Your task to perform on an android device: turn off priority inbox in the gmail app Image 0: 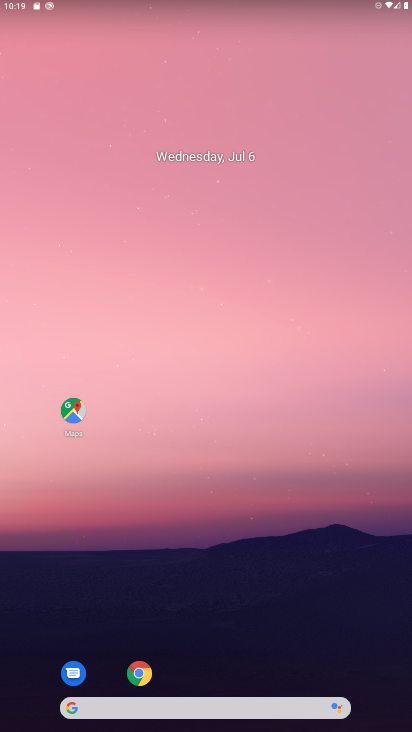
Step 0: drag from (208, 630) to (234, 122)
Your task to perform on an android device: turn off priority inbox in the gmail app Image 1: 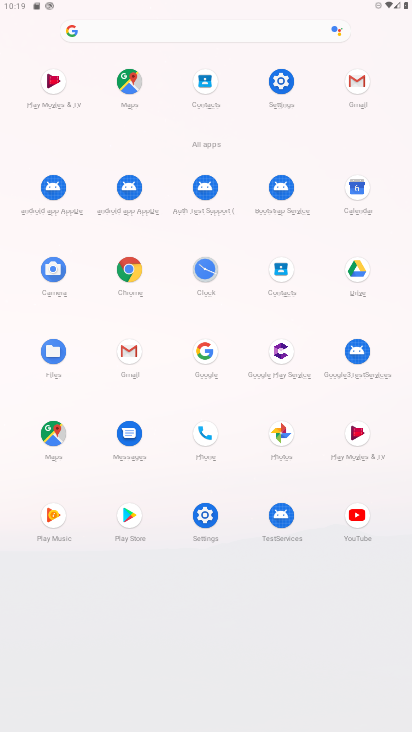
Step 1: click (361, 87)
Your task to perform on an android device: turn off priority inbox in the gmail app Image 2: 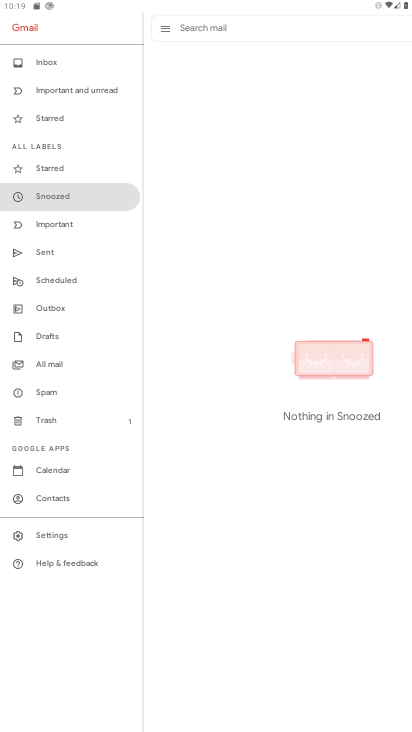
Step 2: click (73, 539)
Your task to perform on an android device: turn off priority inbox in the gmail app Image 3: 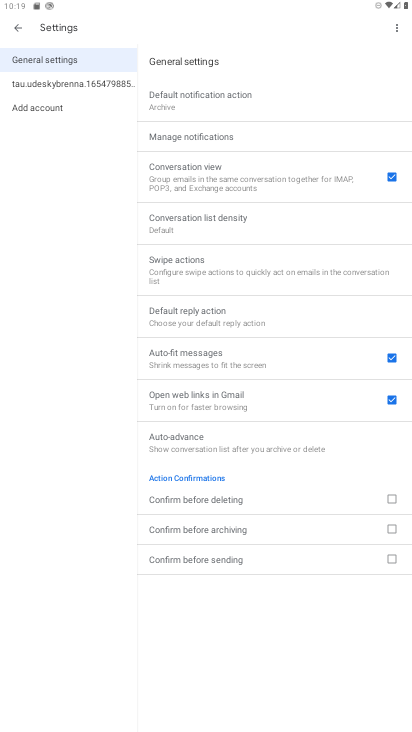
Step 3: click (80, 90)
Your task to perform on an android device: turn off priority inbox in the gmail app Image 4: 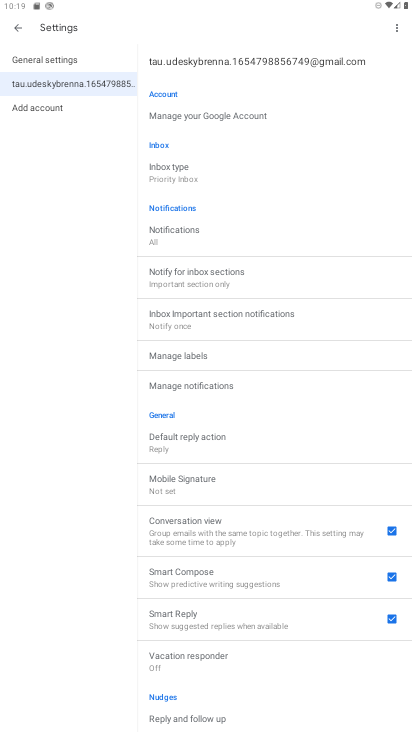
Step 4: click (197, 184)
Your task to perform on an android device: turn off priority inbox in the gmail app Image 5: 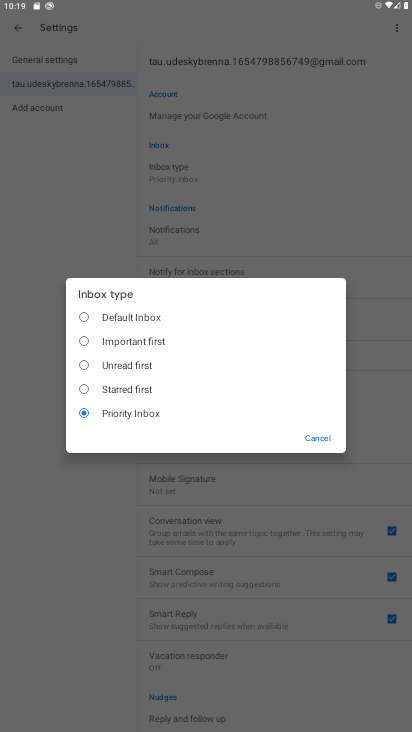
Step 5: click (146, 341)
Your task to perform on an android device: turn off priority inbox in the gmail app Image 6: 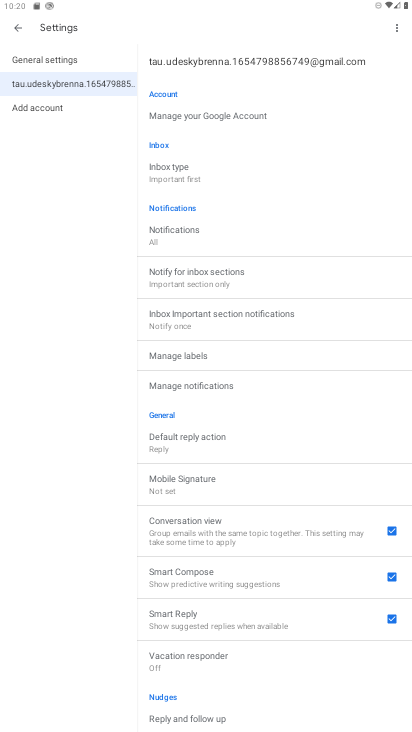
Step 6: task complete